Your task to perform on an android device: Go to Wikipedia Image 0: 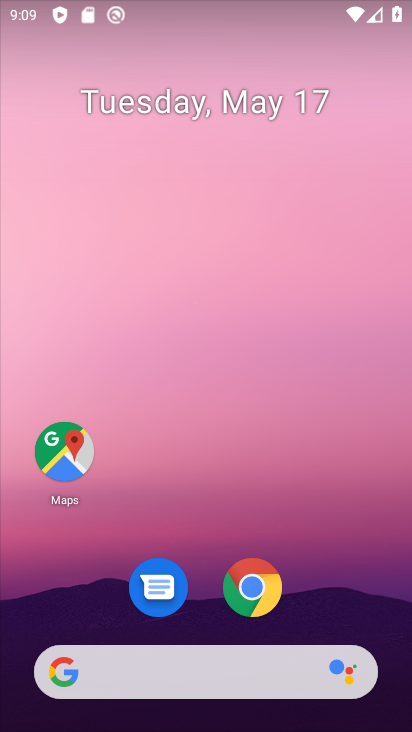
Step 0: drag from (242, 537) to (273, 133)
Your task to perform on an android device: Go to Wikipedia Image 1: 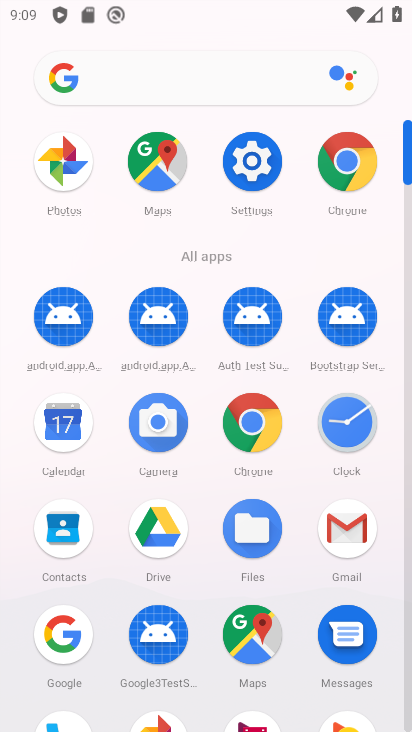
Step 1: click (261, 420)
Your task to perform on an android device: Go to Wikipedia Image 2: 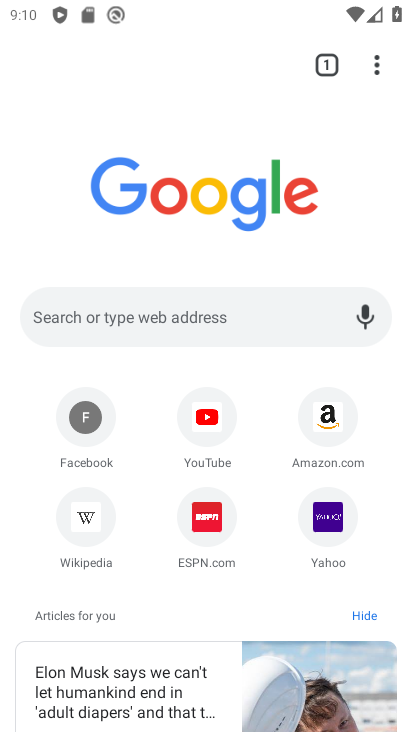
Step 2: click (91, 529)
Your task to perform on an android device: Go to Wikipedia Image 3: 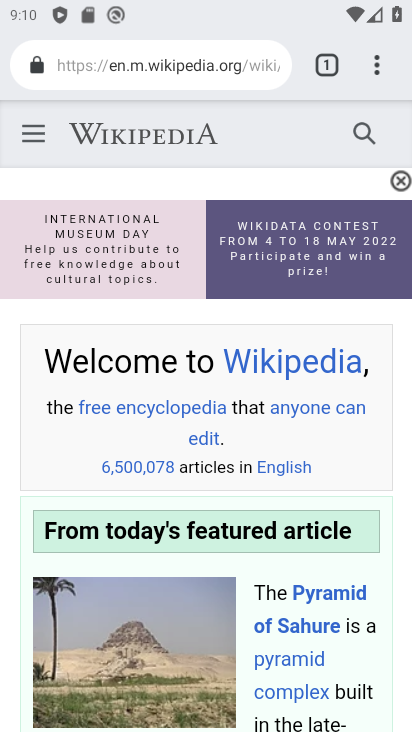
Step 3: task complete